Your task to perform on an android device: Go to Yahoo.com Image 0: 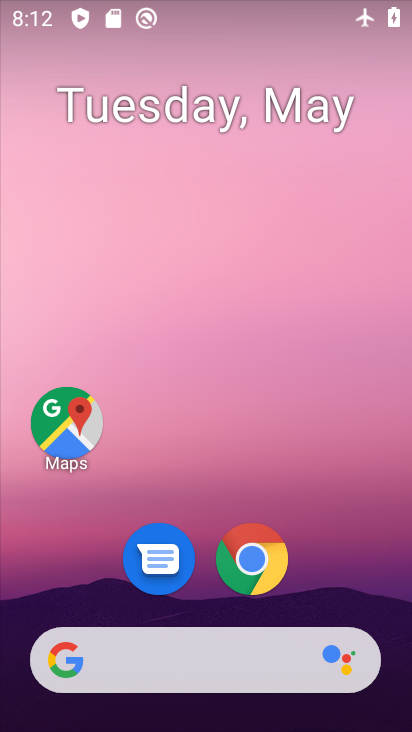
Step 0: click (258, 541)
Your task to perform on an android device: Go to Yahoo.com Image 1: 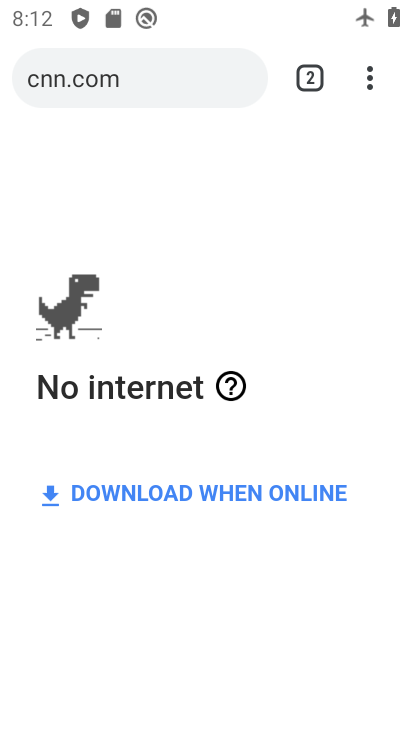
Step 1: click (295, 71)
Your task to perform on an android device: Go to Yahoo.com Image 2: 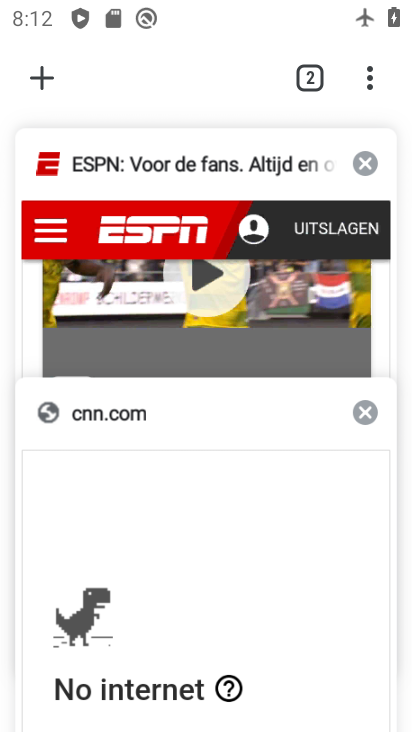
Step 2: click (45, 77)
Your task to perform on an android device: Go to Yahoo.com Image 3: 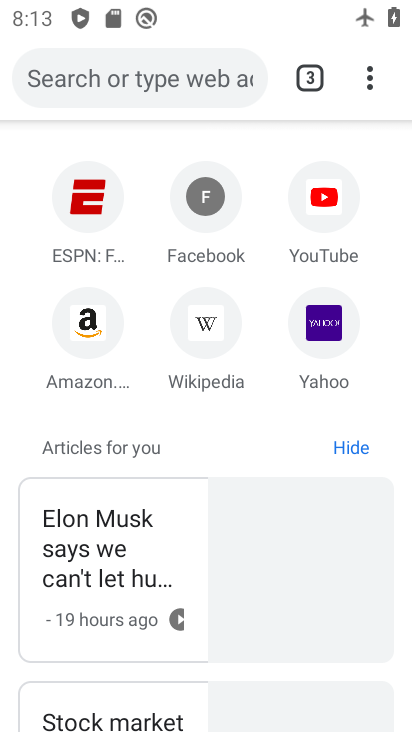
Step 3: click (322, 324)
Your task to perform on an android device: Go to Yahoo.com Image 4: 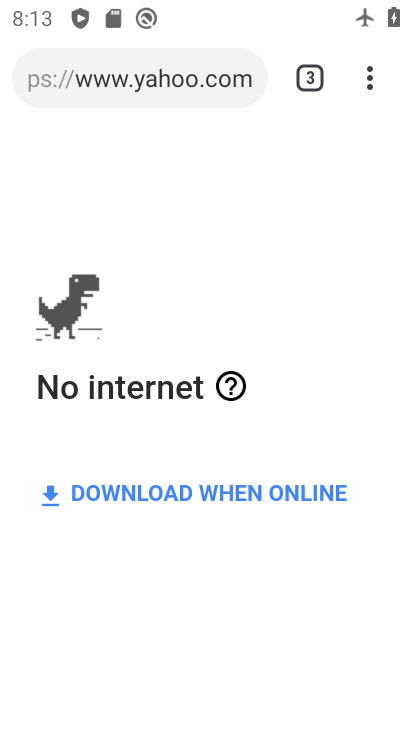
Step 4: task complete